Your task to perform on an android device: check android version Image 0: 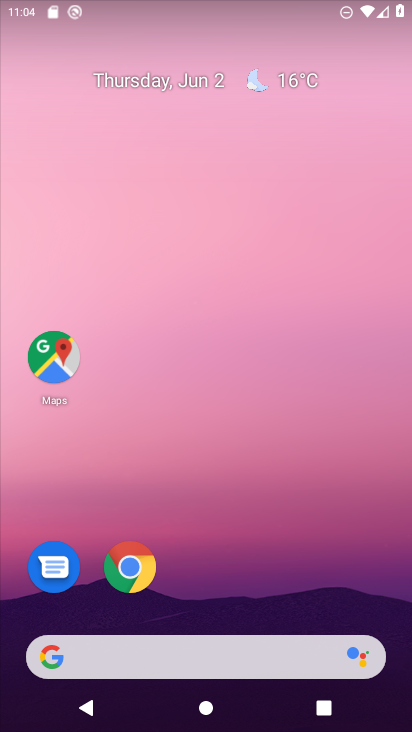
Step 0: drag from (164, 727) to (111, 36)
Your task to perform on an android device: check android version Image 1: 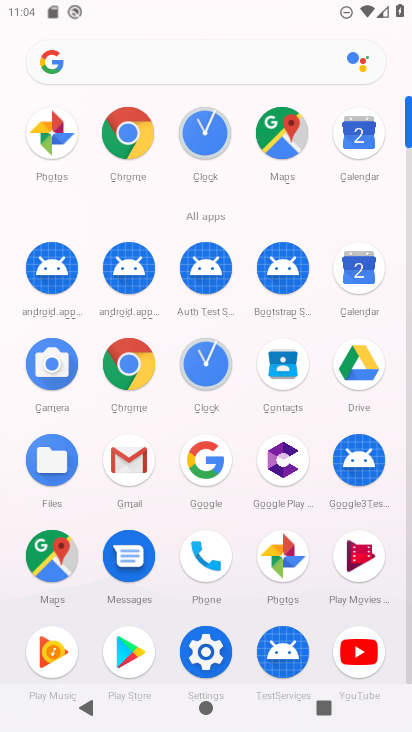
Step 1: click (207, 650)
Your task to perform on an android device: check android version Image 2: 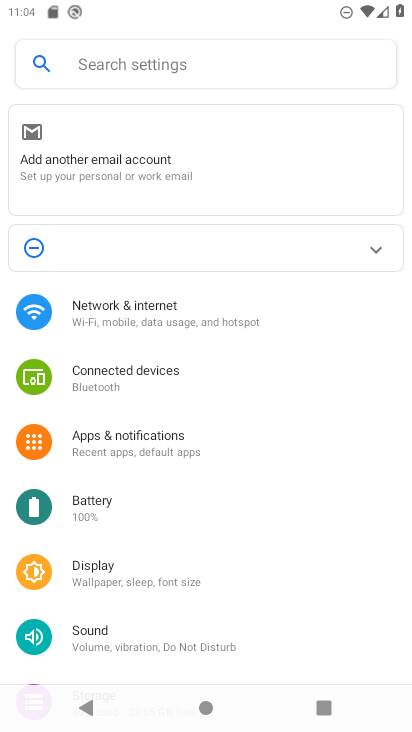
Step 2: drag from (303, 600) to (307, 154)
Your task to perform on an android device: check android version Image 3: 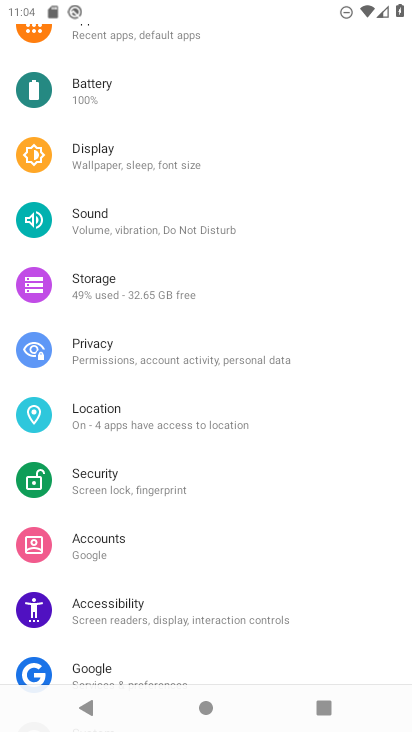
Step 3: drag from (251, 642) to (270, 168)
Your task to perform on an android device: check android version Image 4: 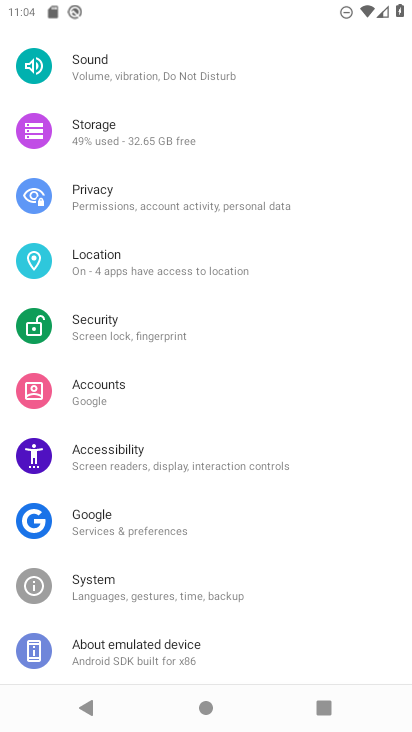
Step 4: click (167, 657)
Your task to perform on an android device: check android version Image 5: 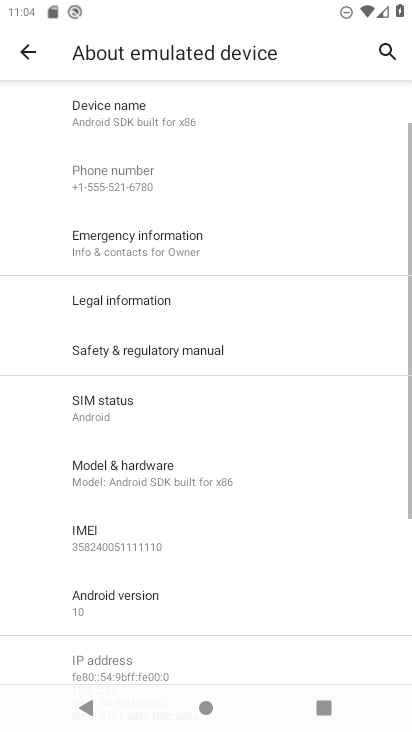
Step 5: click (154, 599)
Your task to perform on an android device: check android version Image 6: 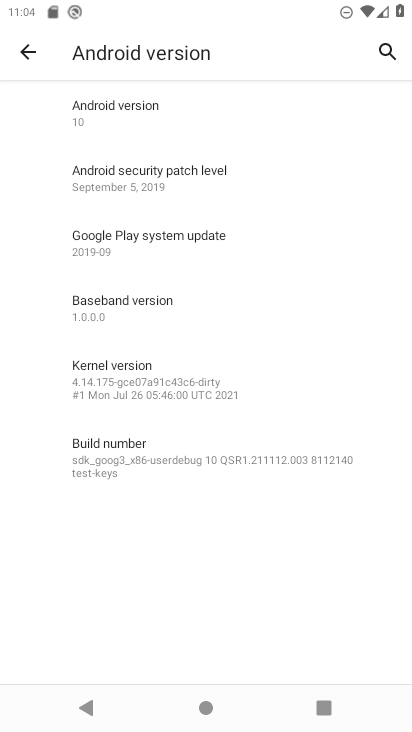
Step 6: click (156, 112)
Your task to perform on an android device: check android version Image 7: 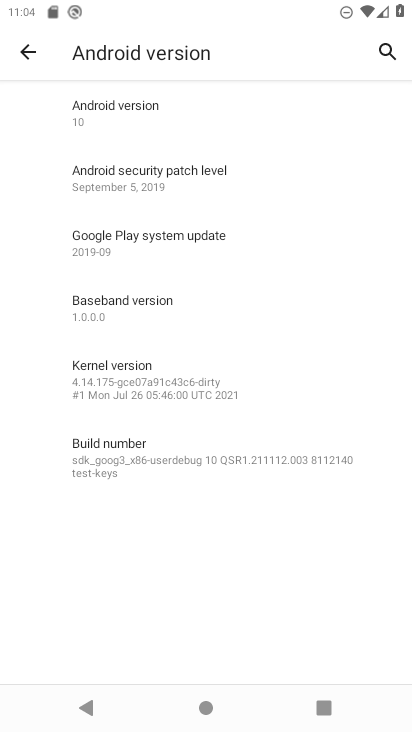
Step 7: click (146, 127)
Your task to perform on an android device: check android version Image 8: 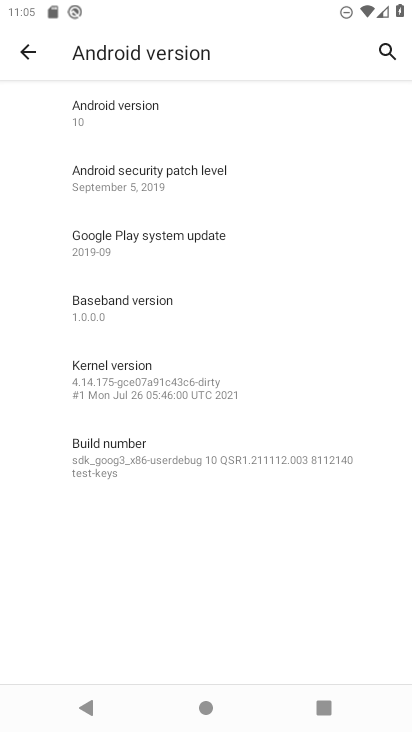
Step 8: task complete